Your task to perform on an android device: read, delete, or share a saved page in the chrome app Image 0: 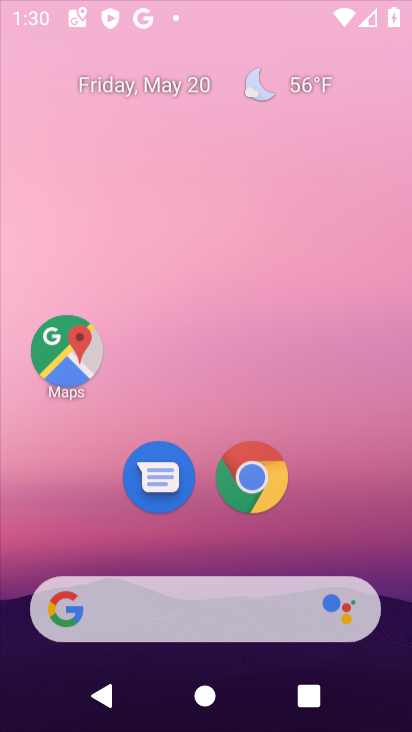
Step 0: drag from (225, 343) to (235, 20)
Your task to perform on an android device: read, delete, or share a saved page in the chrome app Image 1: 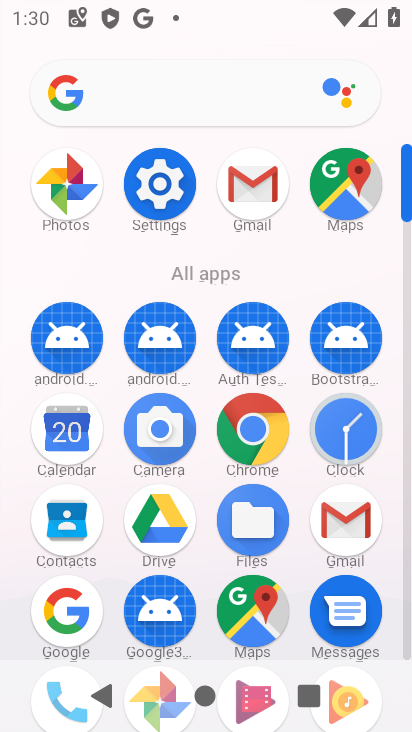
Step 1: click (248, 418)
Your task to perform on an android device: read, delete, or share a saved page in the chrome app Image 2: 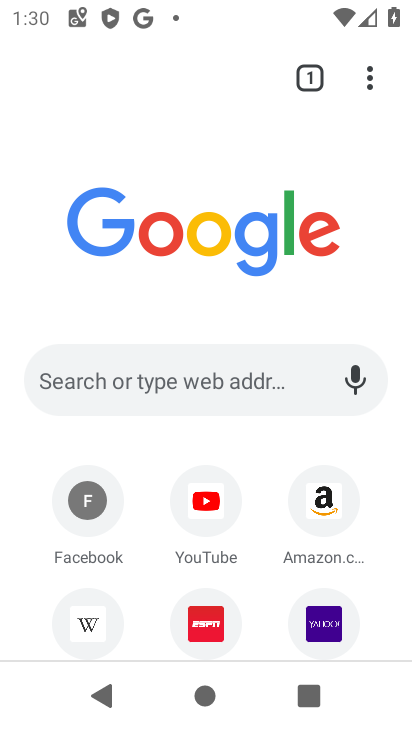
Step 2: click (369, 75)
Your task to perform on an android device: read, delete, or share a saved page in the chrome app Image 3: 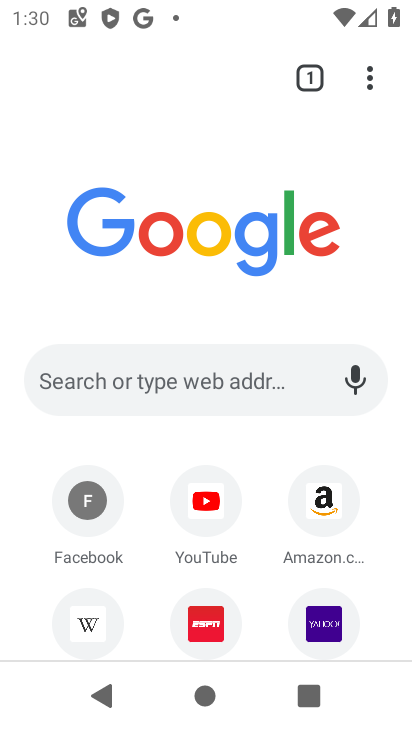
Step 3: click (370, 68)
Your task to perform on an android device: read, delete, or share a saved page in the chrome app Image 4: 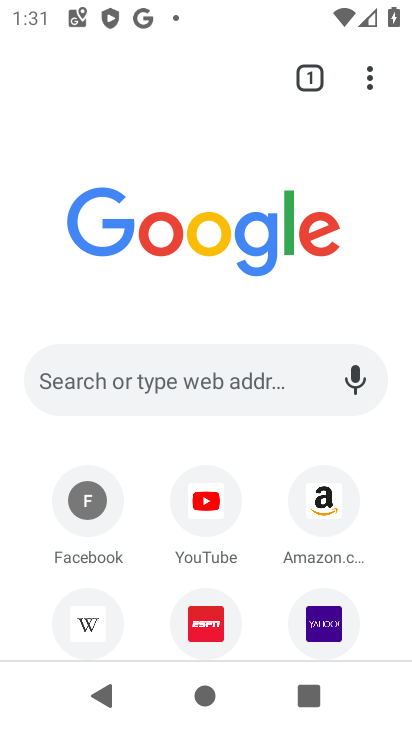
Step 4: click (370, 68)
Your task to perform on an android device: read, delete, or share a saved page in the chrome app Image 5: 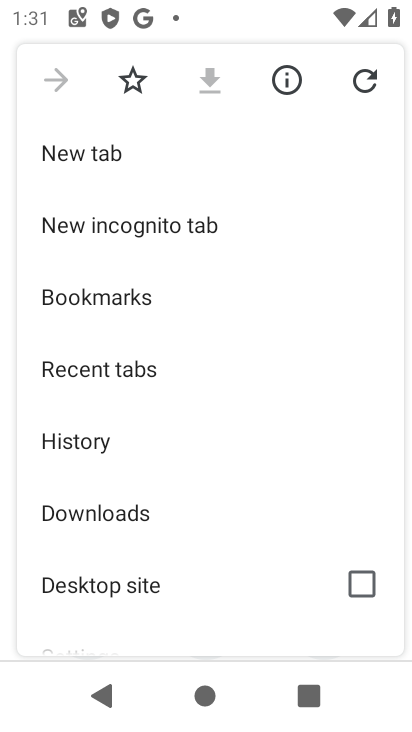
Step 5: drag from (178, 563) to (220, 170)
Your task to perform on an android device: read, delete, or share a saved page in the chrome app Image 6: 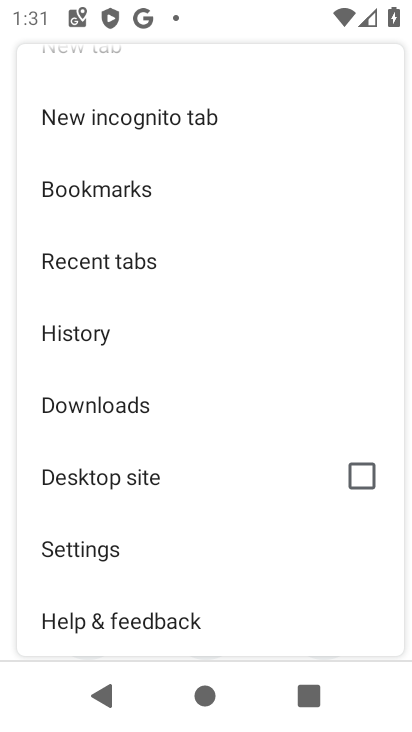
Step 6: click (160, 400)
Your task to perform on an android device: read, delete, or share a saved page in the chrome app Image 7: 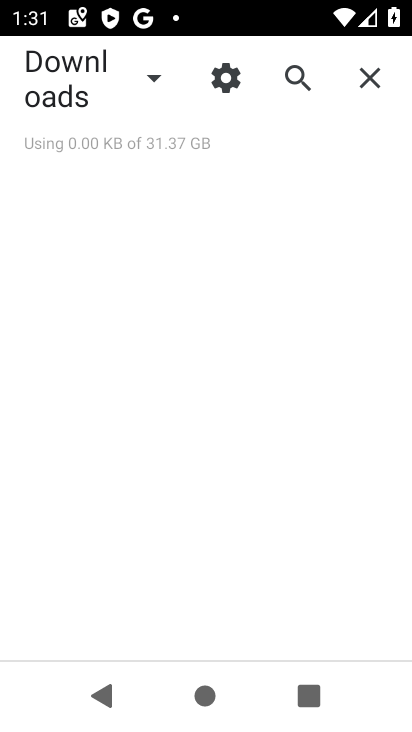
Step 7: task complete